Your task to perform on an android device: Open maps Image 0: 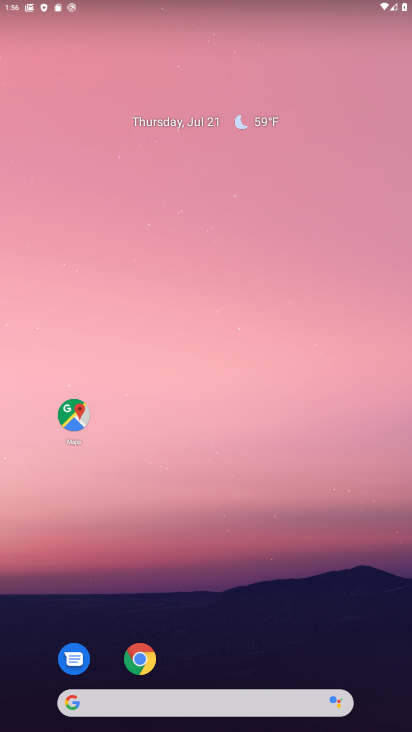
Step 0: drag from (326, 634) to (179, 67)
Your task to perform on an android device: Open maps Image 1: 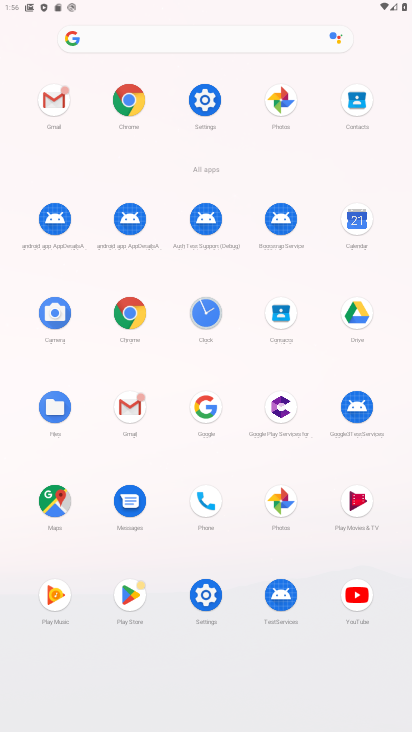
Step 1: click (59, 500)
Your task to perform on an android device: Open maps Image 2: 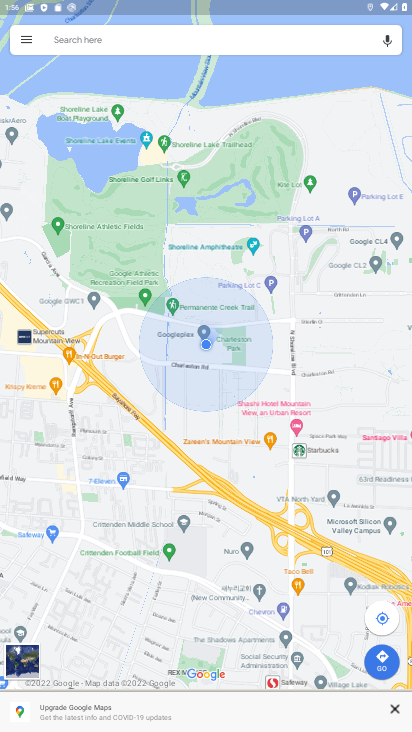
Step 2: task complete